Your task to perform on an android device: show emergency info Image 0: 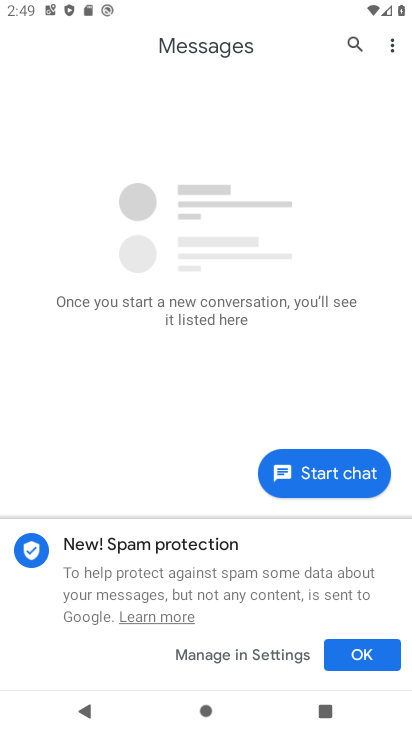
Step 0: press home button
Your task to perform on an android device: show emergency info Image 1: 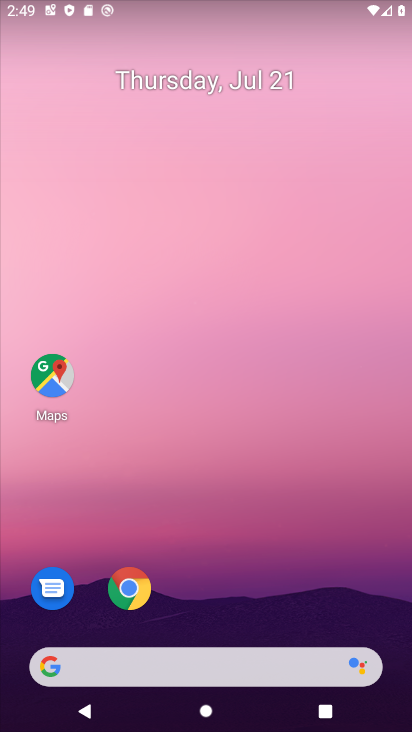
Step 1: drag from (259, 566) to (196, 170)
Your task to perform on an android device: show emergency info Image 2: 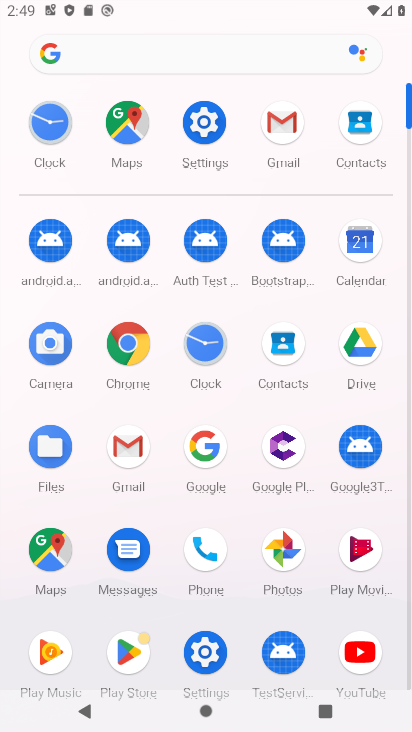
Step 2: click (203, 120)
Your task to perform on an android device: show emergency info Image 3: 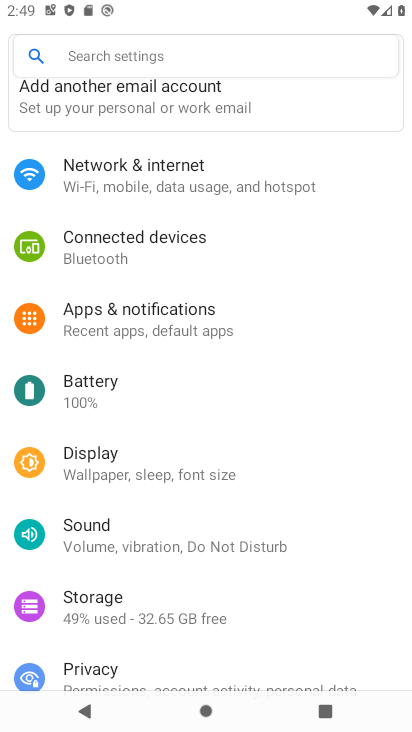
Step 3: drag from (221, 578) to (206, 237)
Your task to perform on an android device: show emergency info Image 4: 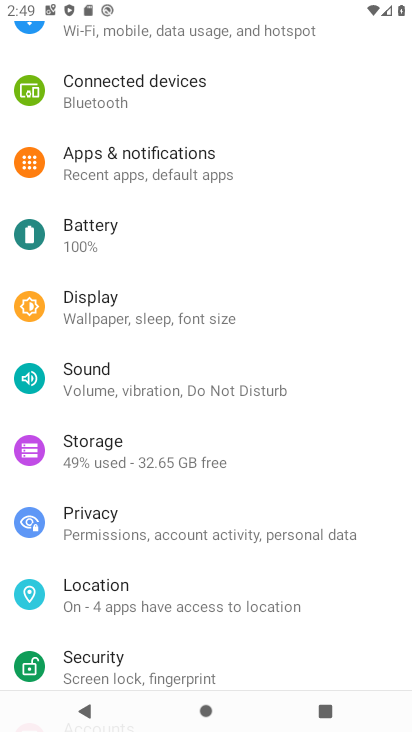
Step 4: drag from (207, 639) to (222, 184)
Your task to perform on an android device: show emergency info Image 5: 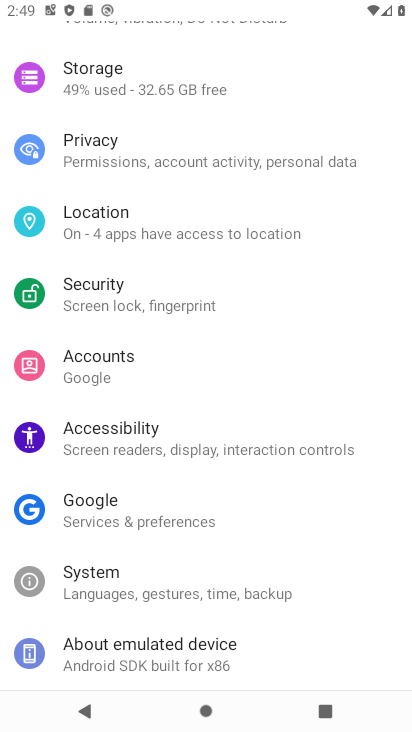
Step 5: click (180, 642)
Your task to perform on an android device: show emergency info Image 6: 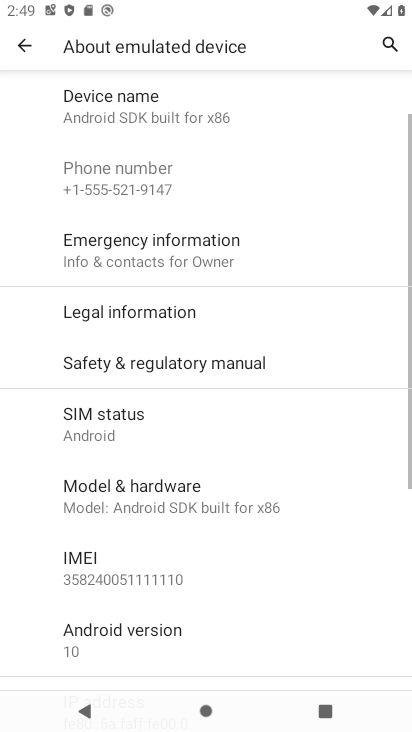
Step 6: click (161, 232)
Your task to perform on an android device: show emergency info Image 7: 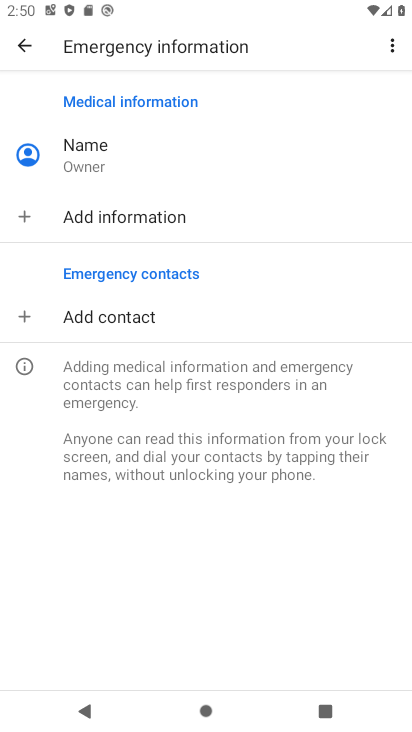
Step 7: task complete